Your task to perform on an android device: Open Maps and search for coffee Image 0: 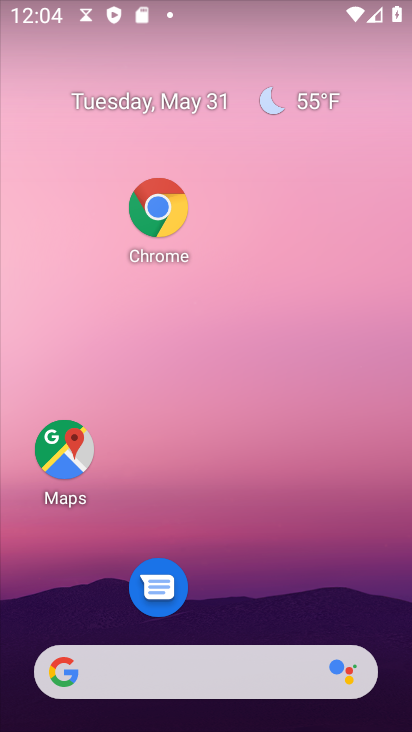
Step 0: click (68, 473)
Your task to perform on an android device: Open Maps and search for coffee Image 1: 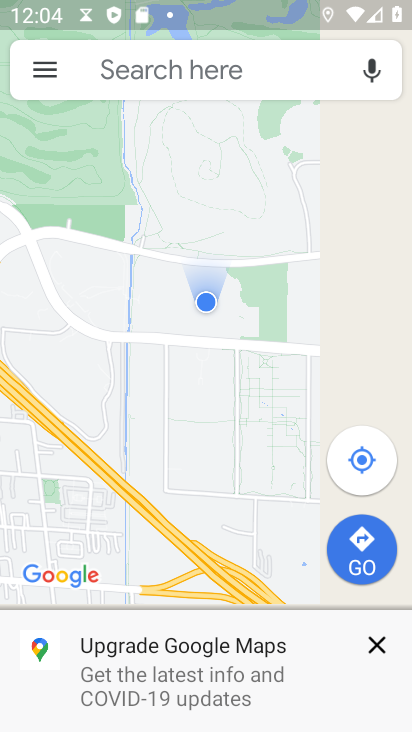
Step 1: click (155, 88)
Your task to perform on an android device: Open Maps and search for coffee Image 2: 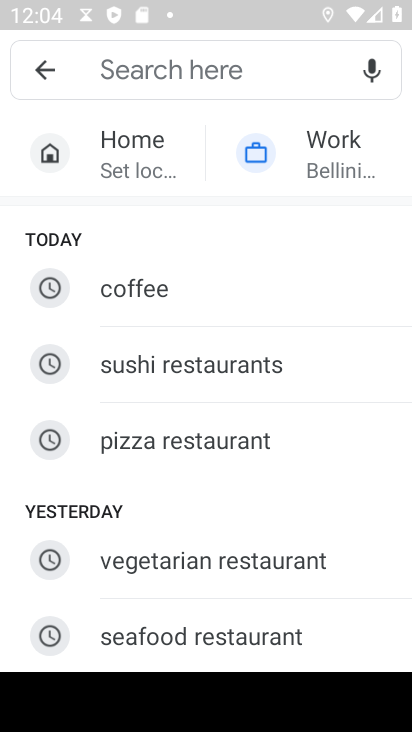
Step 2: click (117, 285)
Your task to perform on an android device: Open Maps and search for coffee Image 3: 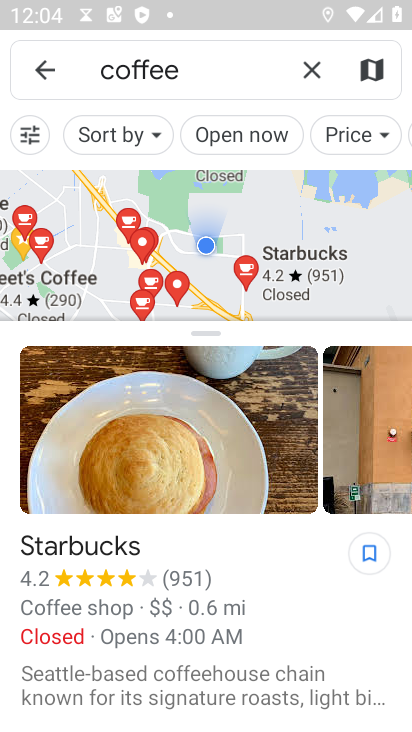
Step 3: task complete